Your task to perform on an android device: set default search engine in the chrome app Image 0: 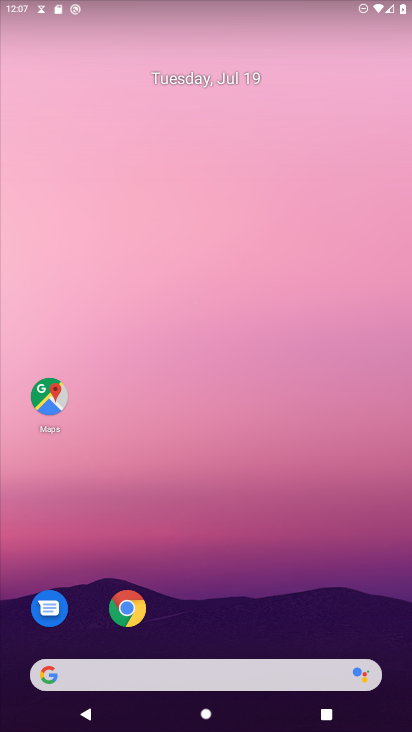
Step 0: drag from (343, 625) to (405, 385)
Your task to perform on an android device: set default search engine in the chrome app Image 1: 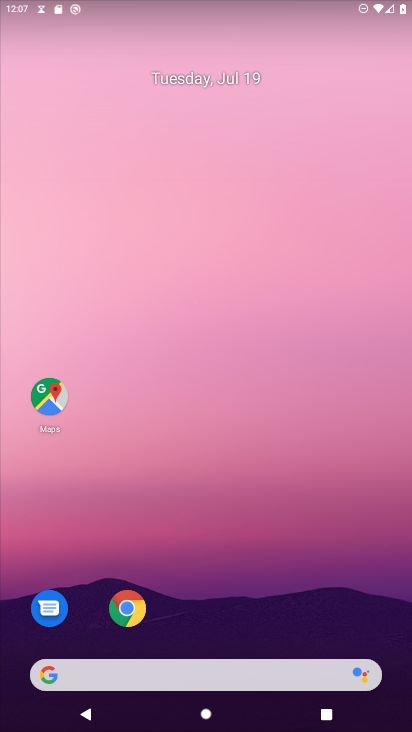
Step 1: drag from (255, 640) to (305, 158)
Your task to perform on an android device: set default search engine in the chrome app Image 2: 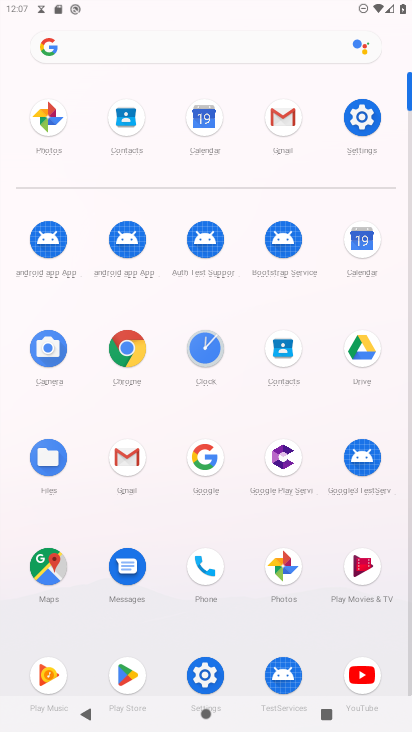
Step 2: click (121, 351)
Your task to perform on an android device: set default search engine in the chrome app Image 3: 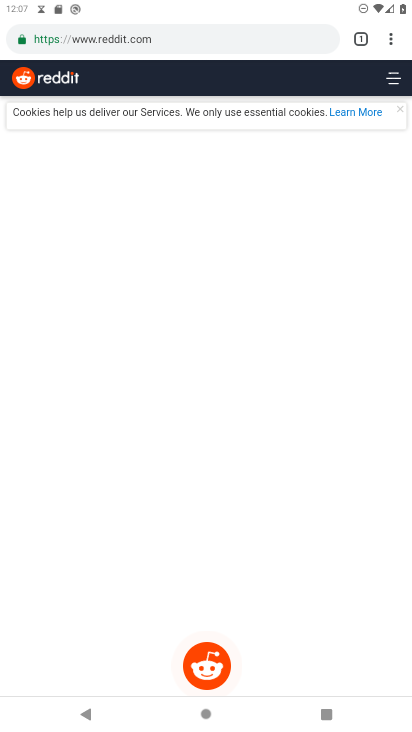
Step 3: drag from (388, 33) to (296, 429)
Your task to perform on an android device: set default search engine in the chrome app Image 4: 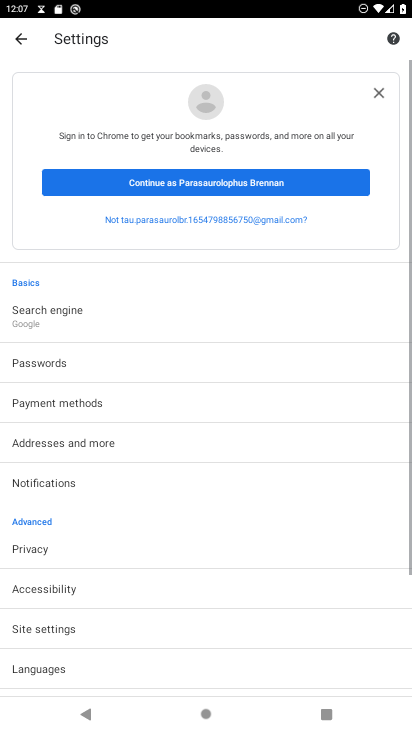
Step 4: click (111, 315)
Your task to perform on an android device: set default search engine in the chrome app Image 5: 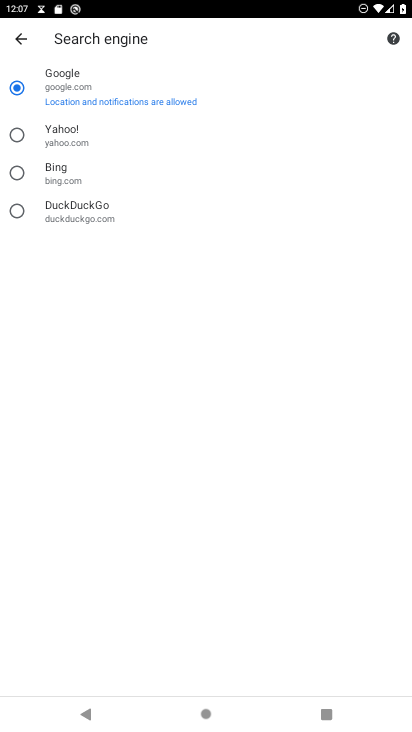
Step 5: task complete